Your task to perform on an android device: Open battery settings Image 0: 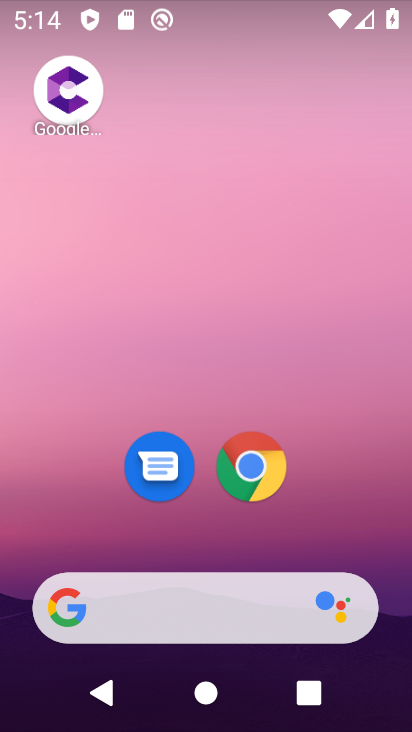
Step 0: drag from (319, 509) to (330, 126)
Your task to perform on an android device: Open battery settings Image 1: 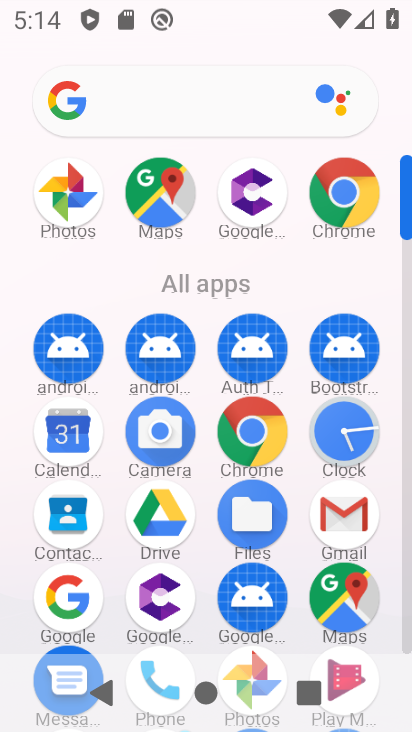
Step 1: click (253, 437)
Your task to perform on an android device: Open battery settings Image 2: 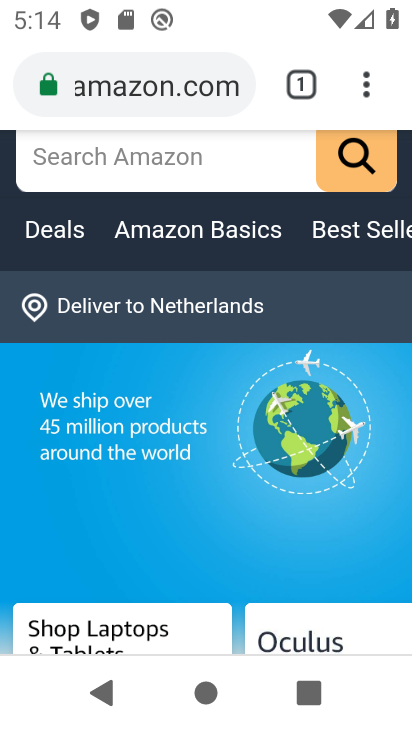
Step 2: press home button
Your task to perform on an android device: Open battery settings Image 3: 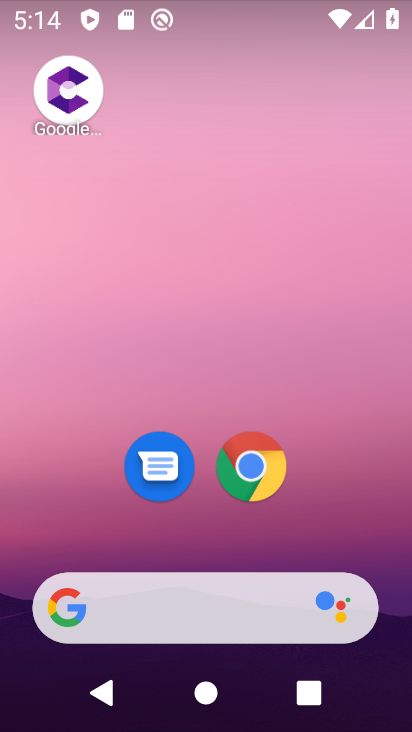
Step 3: drag from (270, 538) to (353, 167)
Your task to perform on an android device: Open battery settings Image 4: 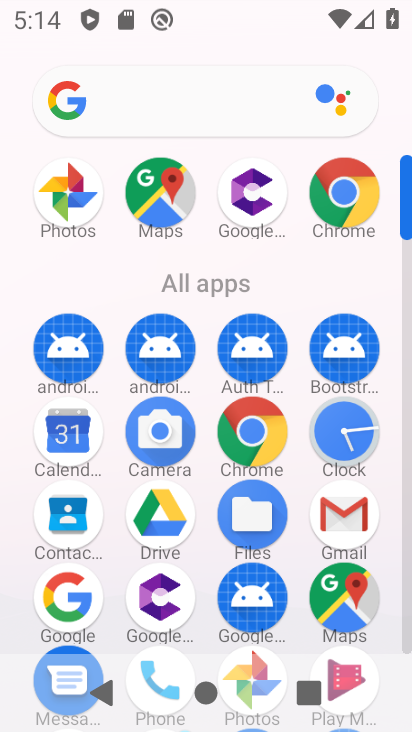
Step 4: drag from (217, 283) to (235, 32)
Your task to perform on an android device: Open battery settings Image 5: 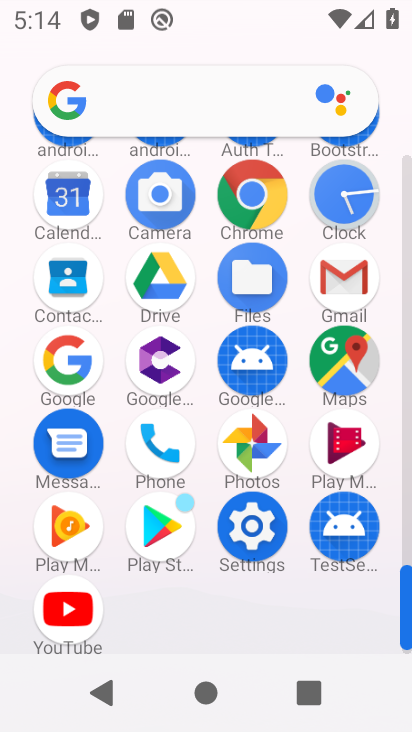
Step 5: click (258, 520)
Your task to perform on an android device: Open battery settings Image 6: 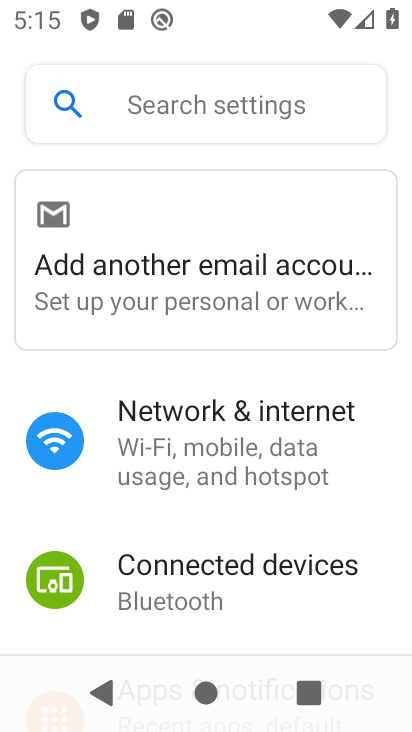
Step 6: drag from (195, 516) to (221, 251)
Your task to perform on an android device: Open battery settings Image 7: 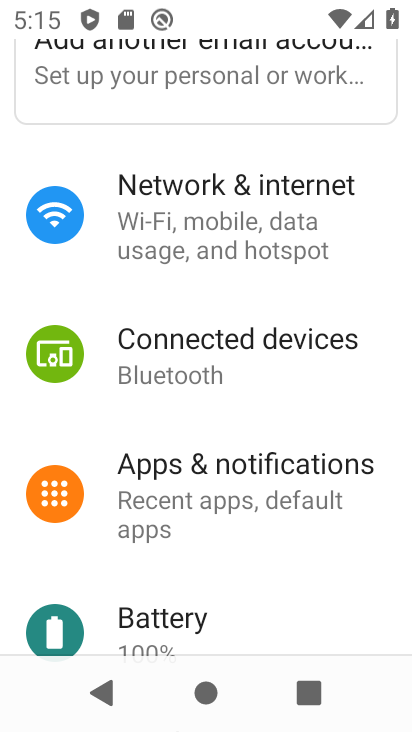
Step 7: drag from (196, 568) to (238, 193)
Your task to perform on an android device: Open battery settings Image 8: 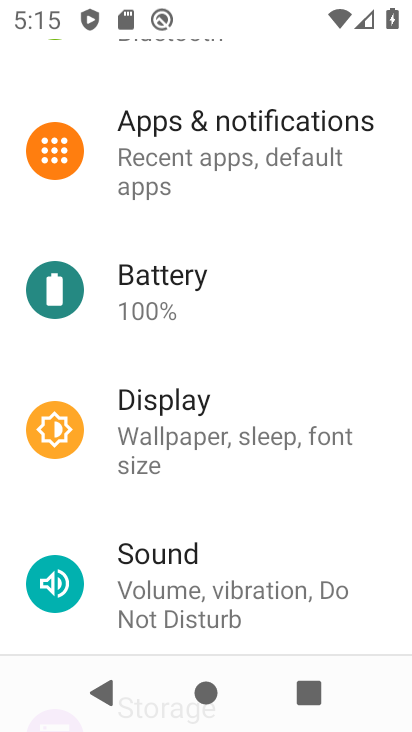
Step 8: drag from (247, 508) to (267, 350)
Your task to perform on an android device: Open battery settings Image 9: 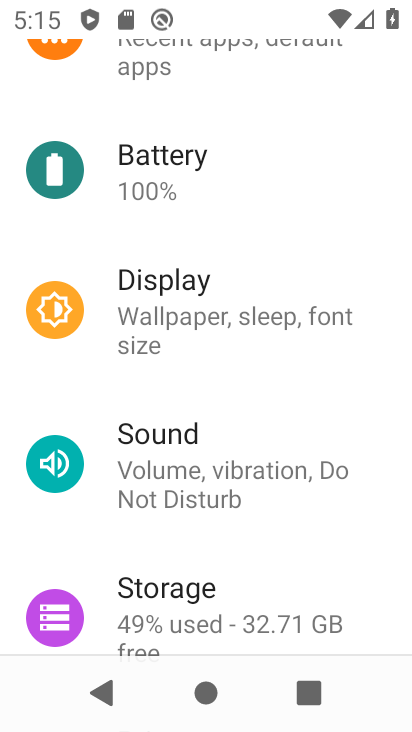
Step 9: click (172, 180)
Your task to perform on an android device: Open battery settings Image 10: 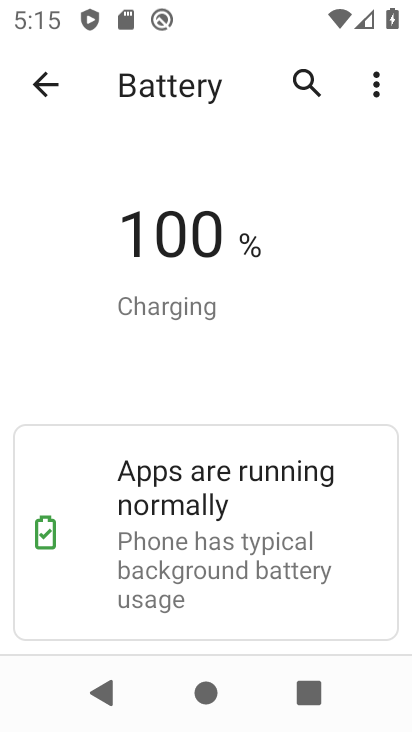
Step 10: task complete